Your task to perform on an android device: turn off smart reply in the gmail app Image 0: 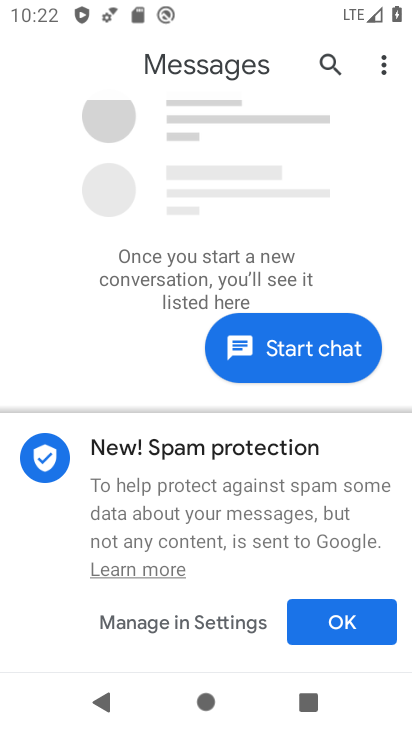
Step 0: press home button
Your task to perform on an android device: turn off smart reply in the gmail app Image 1: 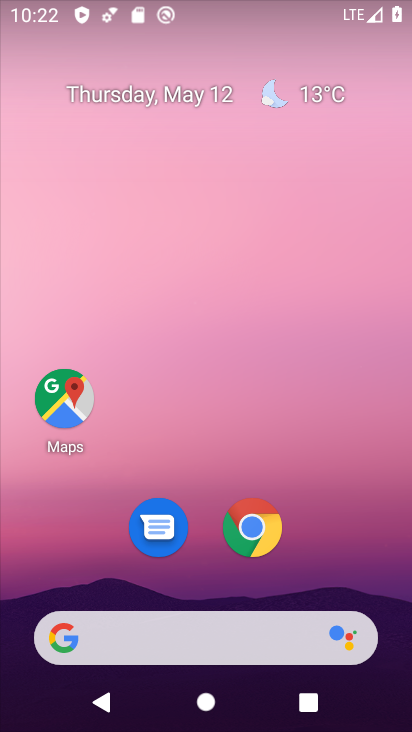
Step 1: drag from (350, 541) to (296, 171)
Your task to perform on an android device: turn off smart reply in the gmail app Image 2: 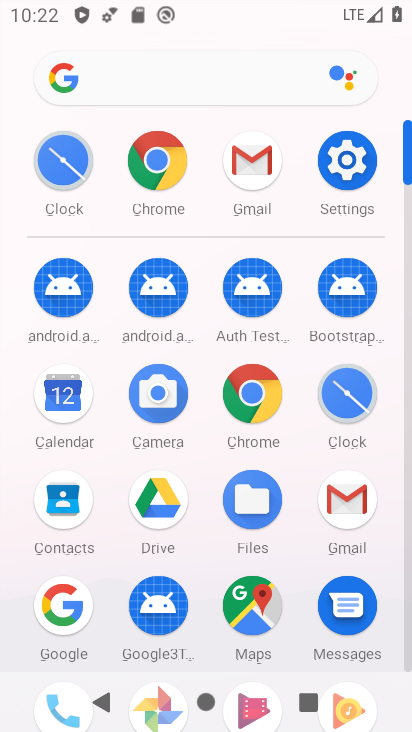
Step 2: click (338, 503)
Your task to perform on an android device: turn off smart reply in the gmail app Image 3: 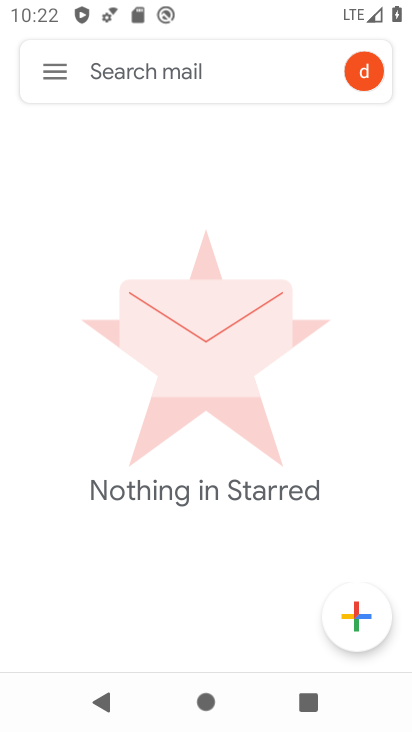
Step 3: click (53, 73)
Your task to perform on an android device: turn off smart reply in the gmail app Image 4: 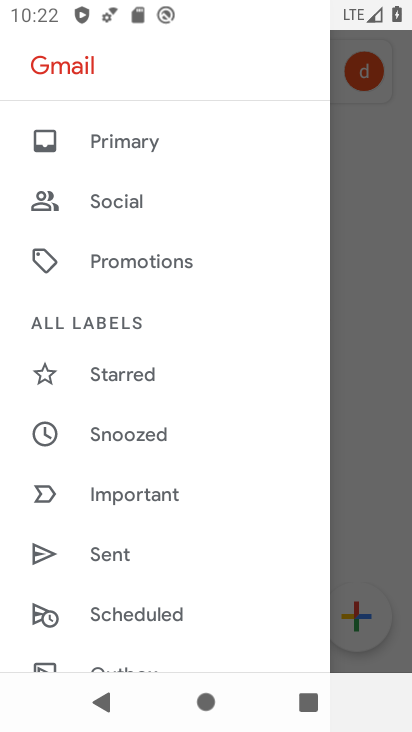
Step 4: drag from (114, 466) to (183, 142)
Your task to perform on an android device: turn off smart reply in the gmail app Image 5: 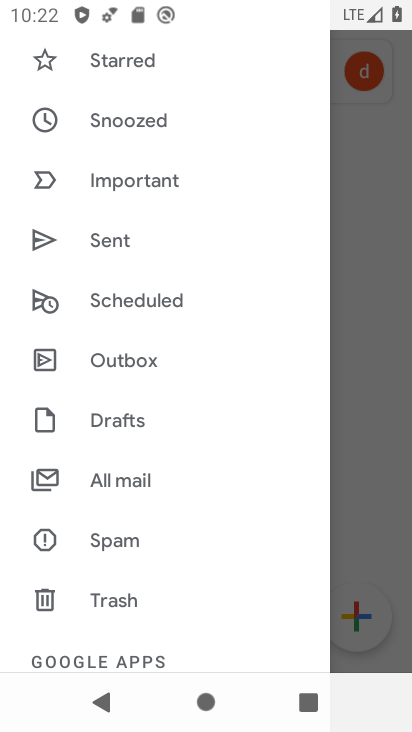
Step 5: drag from (106, 565) to (149, 262)
Your task to perform on an android device: turn off smart reply in the gmail app Image 6: 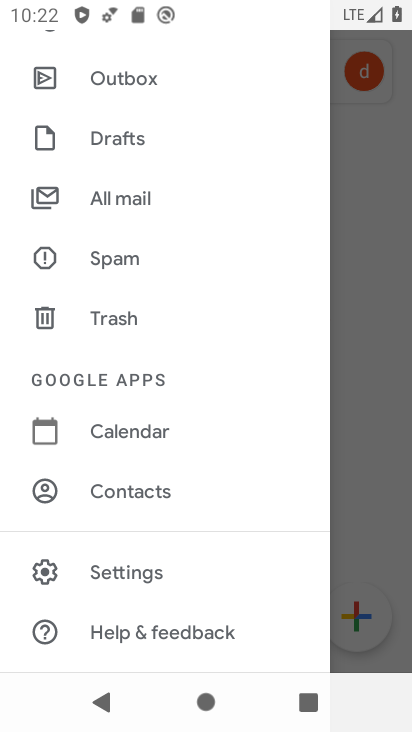
Step 6: click (97, 573)
Your task to perform on an android device: turn off smart reply in the gmail app Image 7: 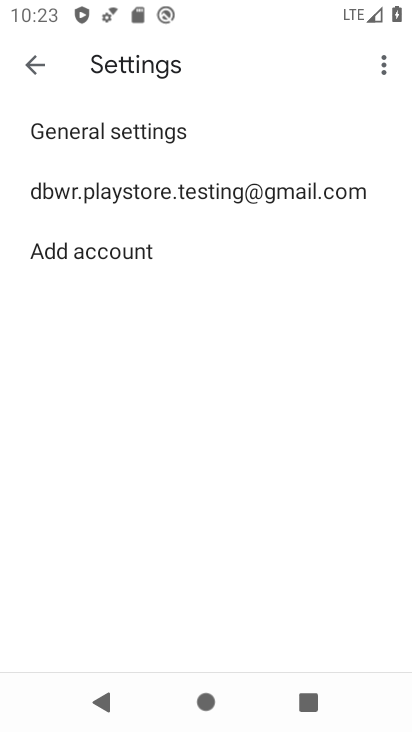
Step 7: click (221, 184)
Your task to perform on an android device: turn off smart reply in the gmail app Image 8: 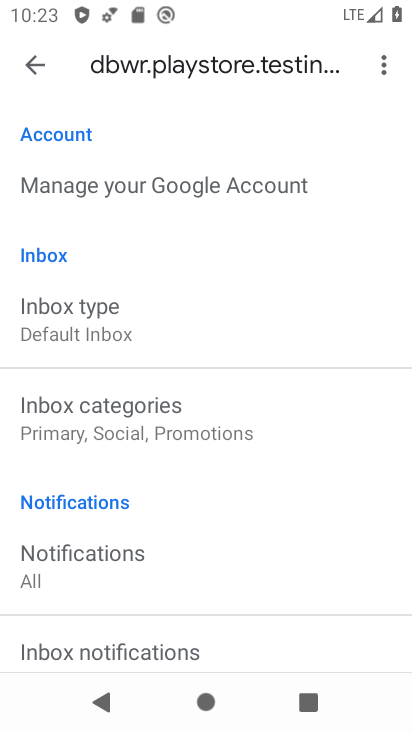
Step 8: drag from (121, 460) to (176, 236)
Your task to perform on an android device: turn off smart reply in the gmail app Image 9: 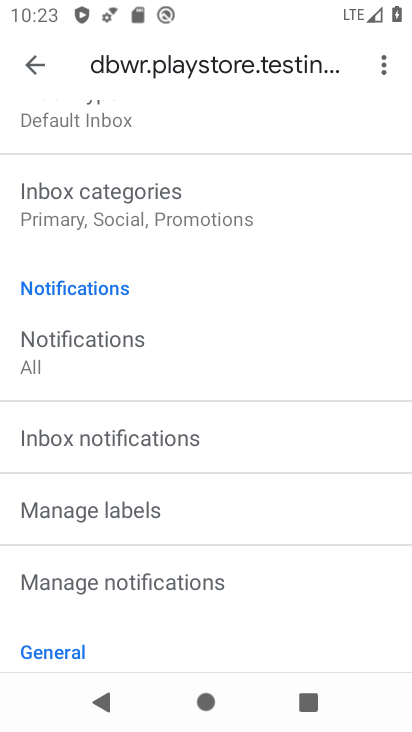
Step 9: drag from (107, 401) to (184, 213)
Your task to perform on an android device: turn off smart reply in the gmail app Image 10: 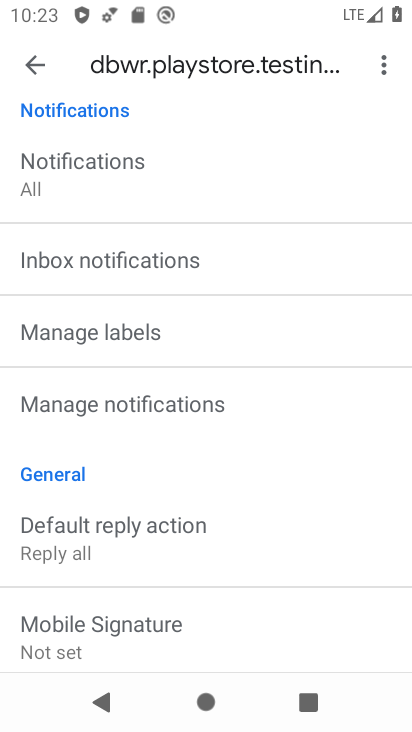
Step 10: drag from (108, 431) to (188, 259)
Your task to perform on an android device: turn off smart reply in the gmail app Image 11: 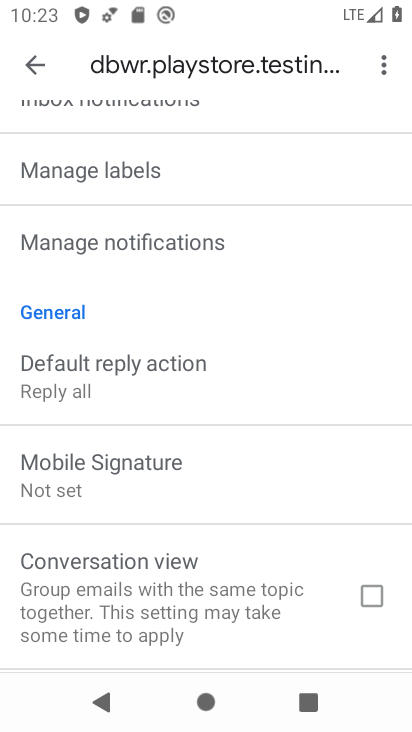
Step 11: drag from (80, 527) to (176, 273)
Your task to perform on an android device: turn off smart reply in the gmail app Image 12: 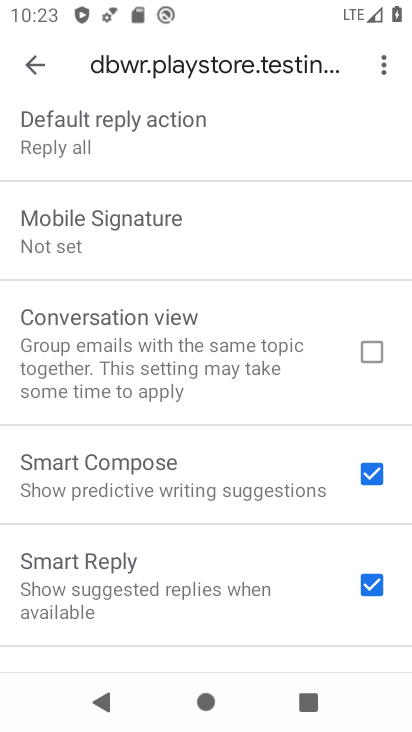
Step 12: click (373, 591)
Your task to perform on an android device: turn off smart reply in the gmail app Image 13: 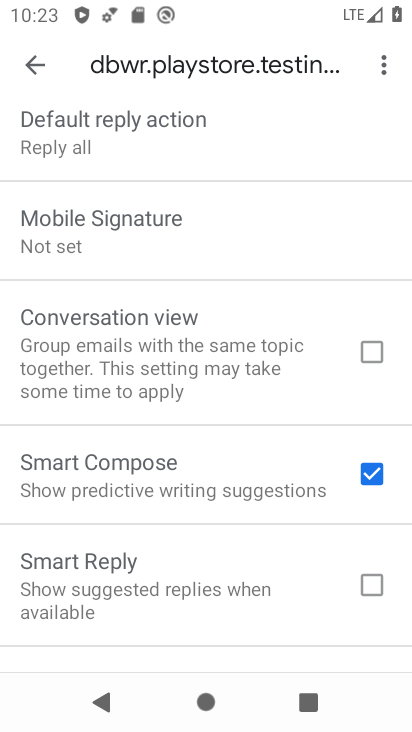
Step 13: task complete